Your task to perform on an android device: Open the map Image 0: 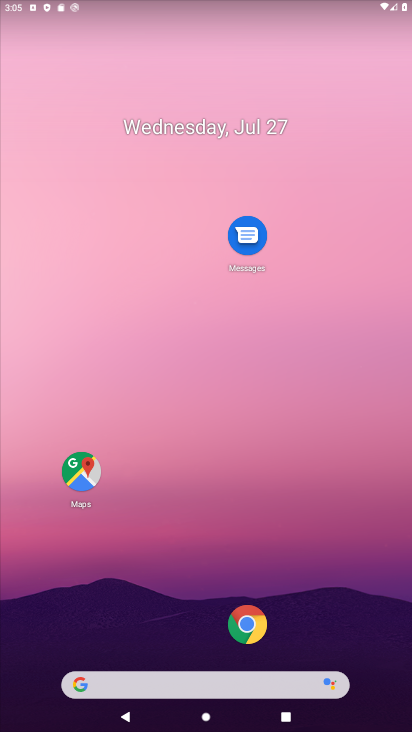
Step 0: click (84, 463)
Your task to perform on an android device: Open the map Image 1: 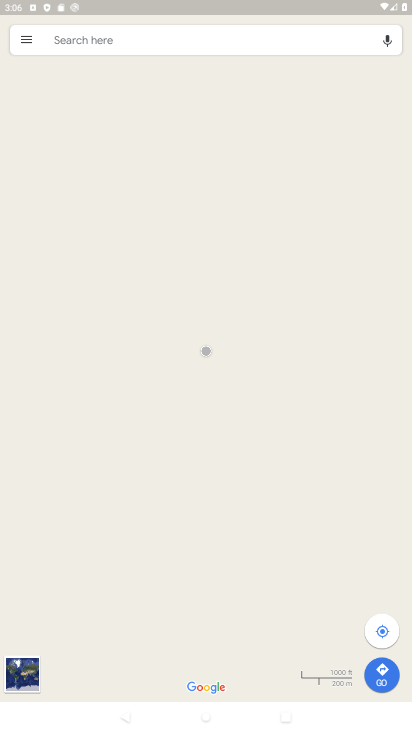
Step 1: task complete